Your task to perform on an android device: turn smart compose on in the gmail app Image 0: 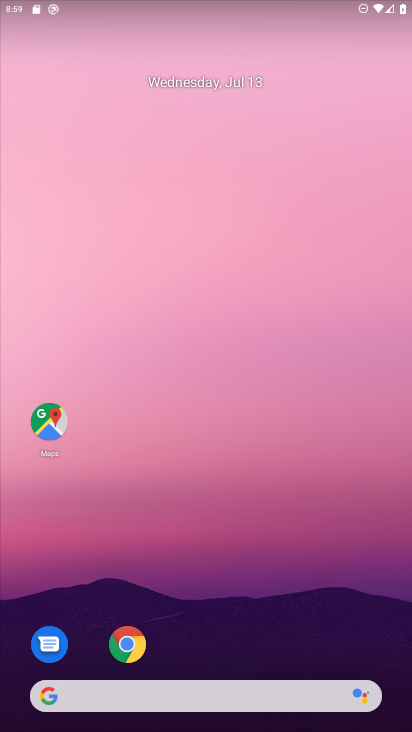
Step 0: press home button
Your task to perform on an android device: turn smart compose on in the gmail app Image 1: 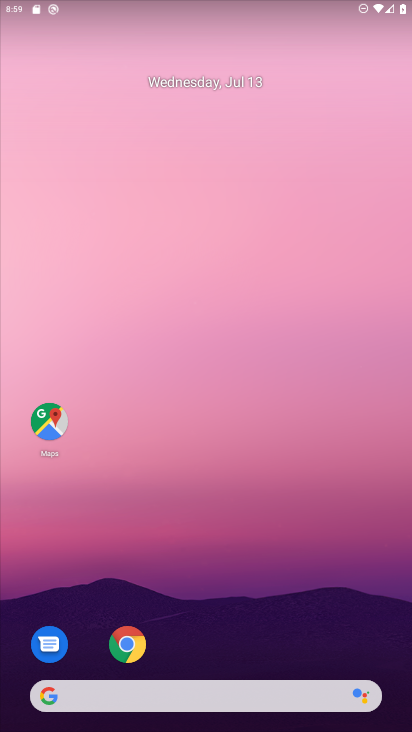
Step 1: drag from (293, 628) to (248, 134)
Your task to perform on an android device: turn smart compose on in the gmail app Image 2: 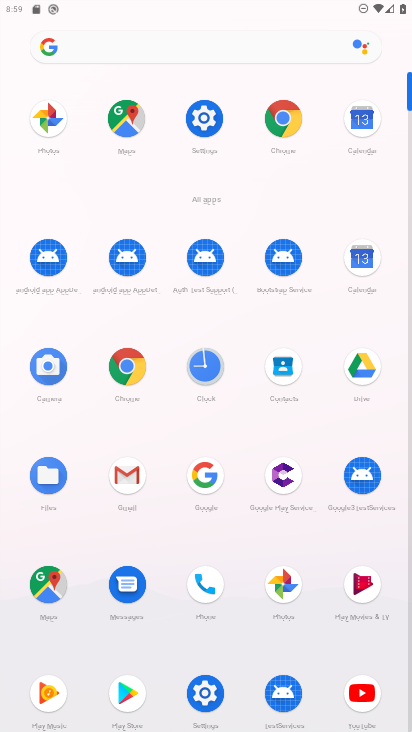
Step 2: click (123, 486)
Your task to perform on an android device: turn smart compose on in the gmail app Image 3: 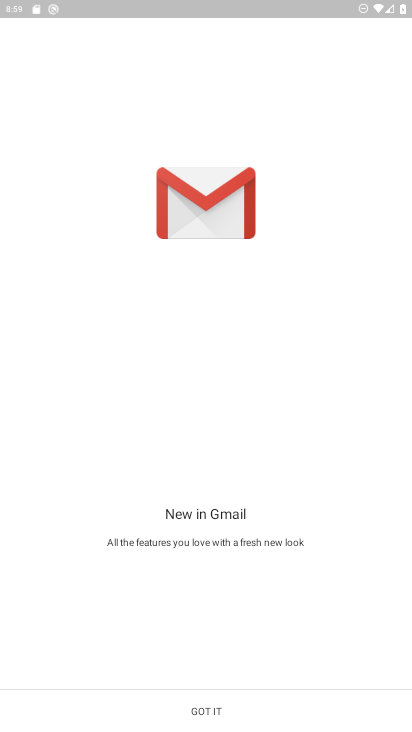
Step 3: click (197, 708)
Your task to perform on an android device: turn smart compose on in the gmail app Image 4: 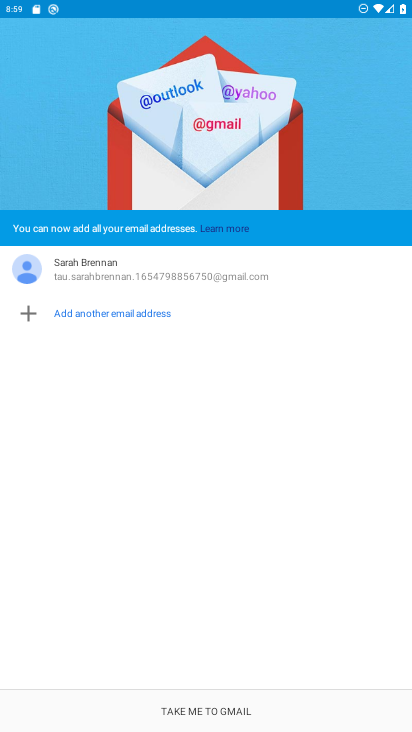
Step 4: click (213, 704)
Your task to perform on an android device: turn smart compose on in the gmail app Image 5: 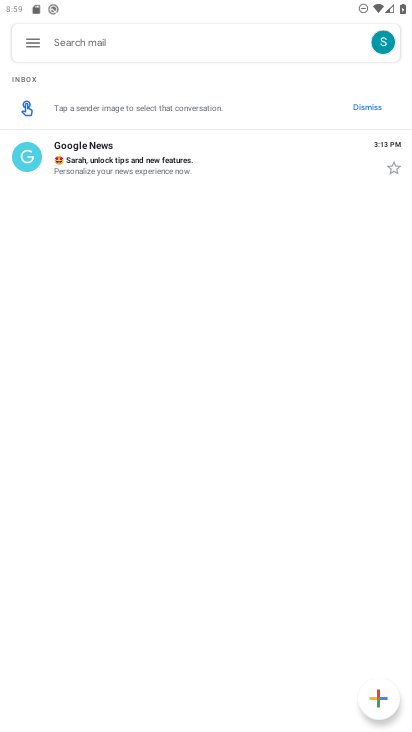
Step 5: click (20, 44)
Your task to perform on an android device: turn smart compose on in the gmail app Image 6: 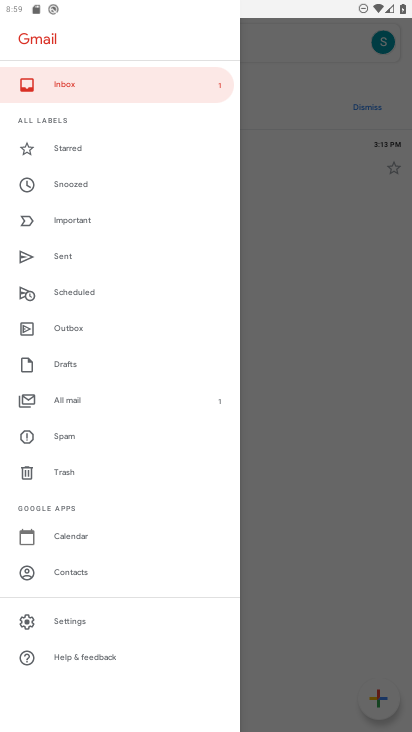
Step 6: click (34, 52)
Your task to perform on an android device: turn smart compose on in the gmail app Image 7: 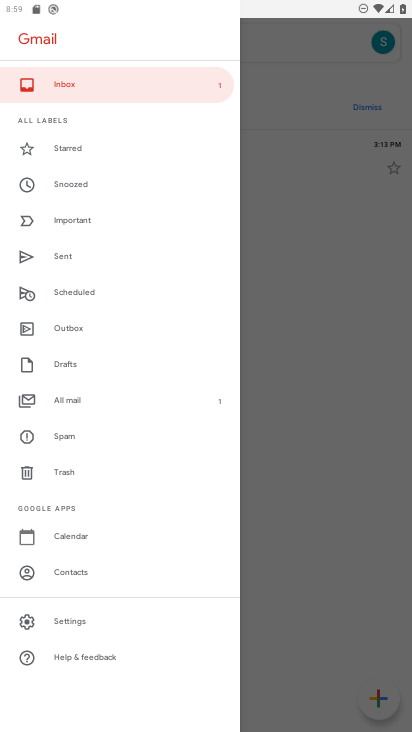
Step 7: click (78, 617)
Your task to perform on an android device: turn smart compose on in the gmail app Image 8: 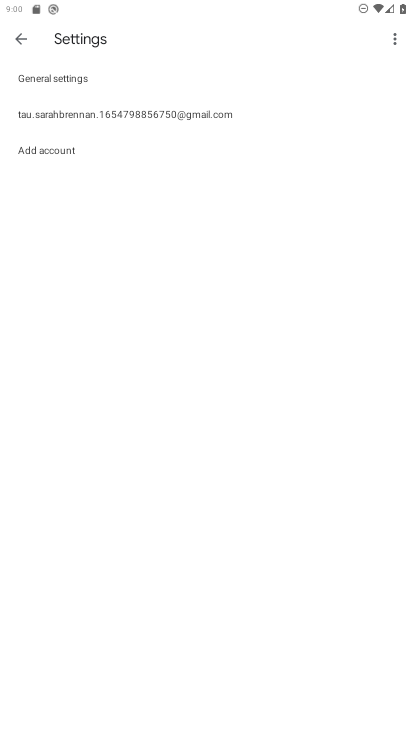
Step 8: click (69, 114)
Your task to perform on an android device: turn smart compose on in the gmail app Image 9: 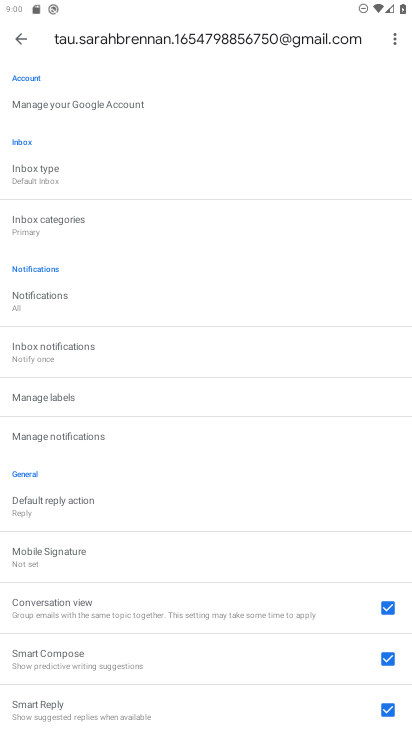
Step 9: task complete